Your task to perform on an android device: open app "Pandora - Music & Podcasts" (install if not already installed) Image 0: 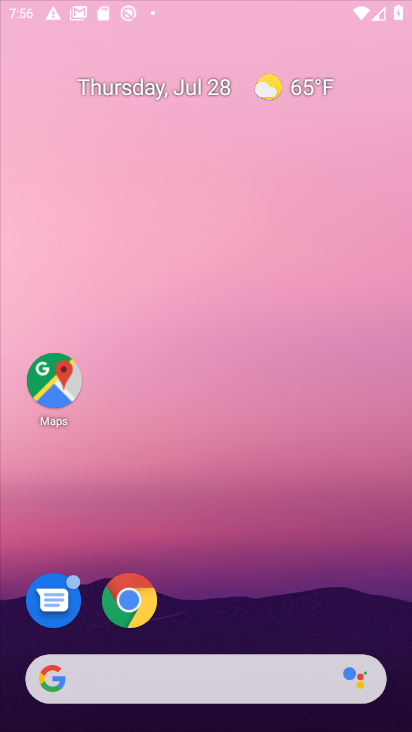
Step 0: press home button
Your task to perform on an android device: open app "Pandora - Music & Podcasts" (install if not already installed) Image 1: 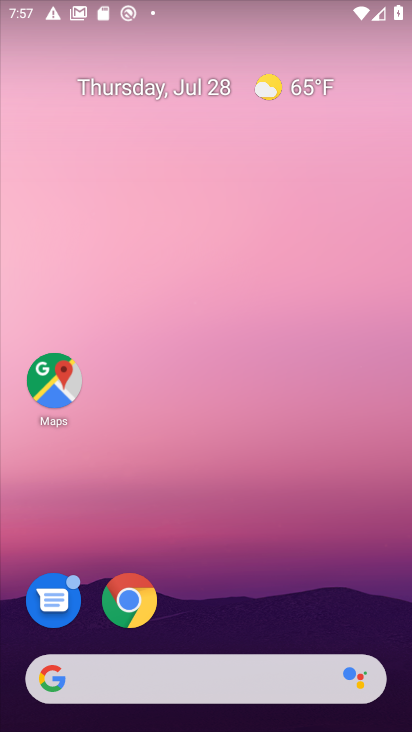
Step 1: drag from (206, 569) to (253, 144)
Your task to perform on an android device: open app "Pandora - Music & Podcasts" (install if not already installed) Image 2: 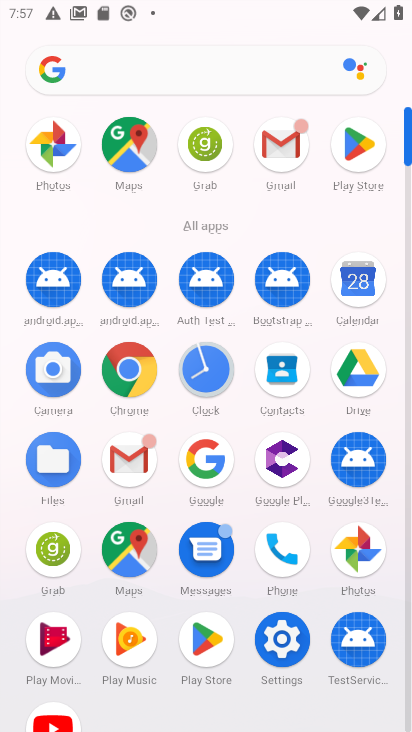
Step 2: click (206, 627)
Your task to perform on an android device: open app "Pandora - Music & Podcasts" (install if not already installed) Image 3: 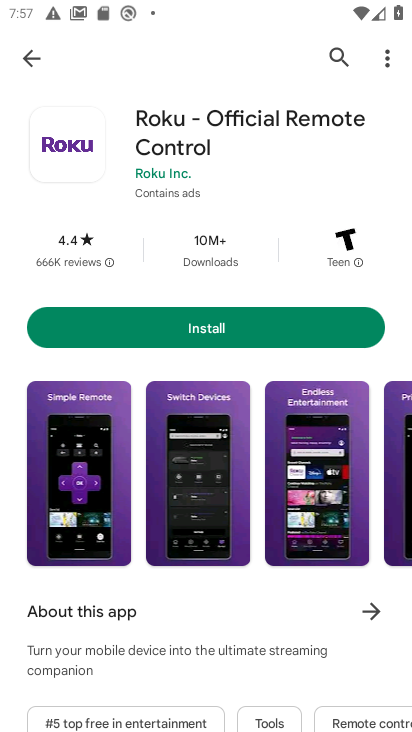
Step 3: click (28, 55)
Your task to perform on an android device: open app "Pandora - Music & Podcasts" (install if not already installed) Image 4: 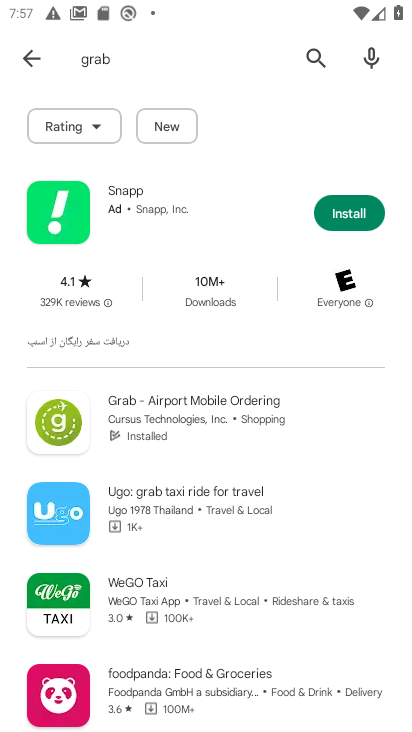
Step 4: click (311, 54)
Your task to perform on an android device: open app "Pandora - Music & Podcasts" (install if not already installed) Image 5: 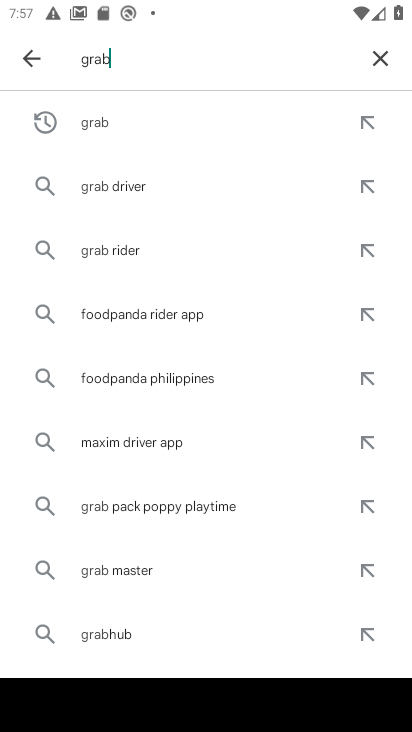
Step 5: click (382, 52)
Your task to perform on an android device: open app "Pandora - Music & Podcasts" (install if not already installed) Image 6: 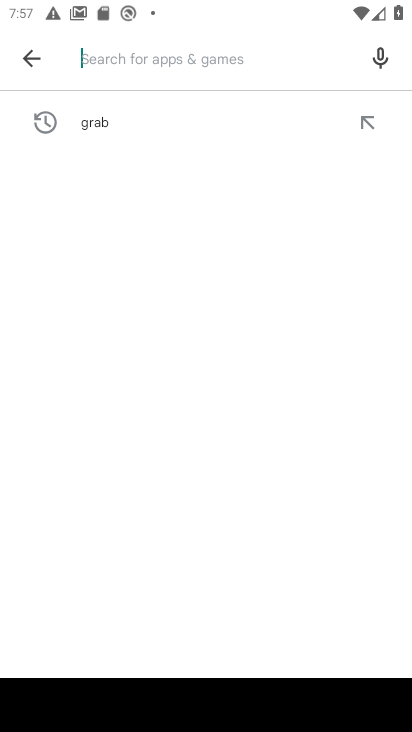
Step 6: type "Pandora - Music & Podcasts"
Your task to perform on an android device: open app "Pandora - Music & Podcasts" (install if not already installed) Image 7: 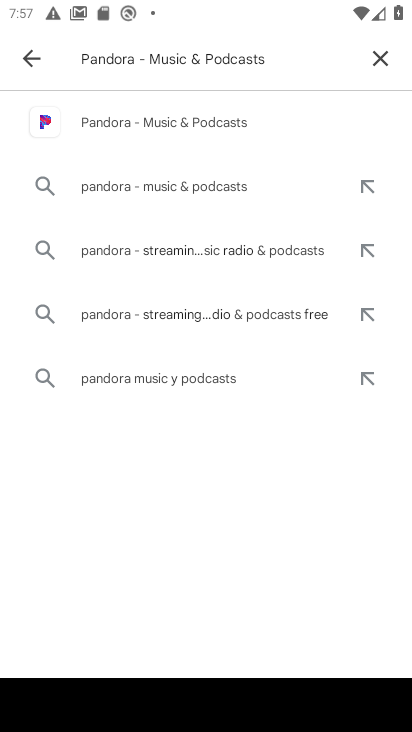
Step 7: click (179, 117)
Your task to perform on an android device: open app "Pandora - Music & Podcasts" (install if not already installed) Image 8: 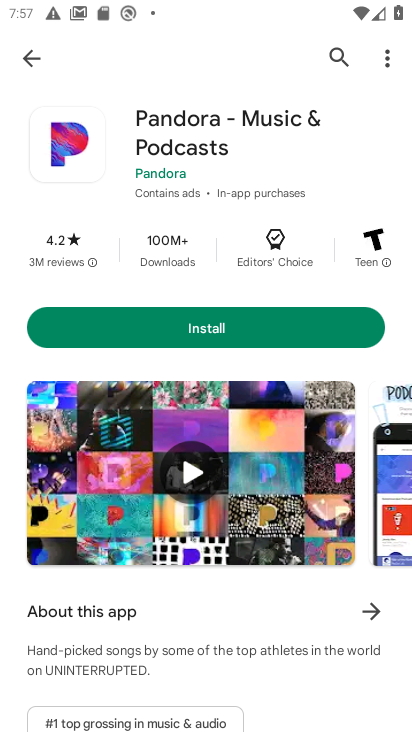
Step 8: click (203, 327)
Your task to perform on an android device: open app "Pandora - Music & Podcasts" (install if not already installed) Image 9: 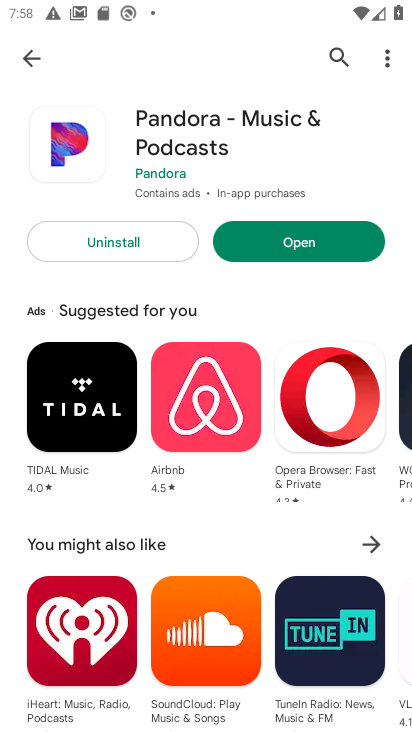
Step 9: click (292, 248)
Your task to perform on an android device: open app "Pandora - Music & Podcasts" (install if not already installed) Image 10: 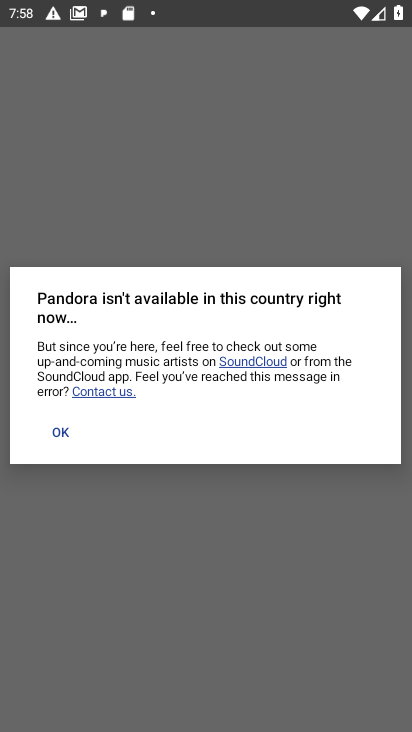
Step 10: click (65, 432)
Your task to perform on an android device: open app "Pandora - Music & Podcasts" (install if not already installed) Image 11: 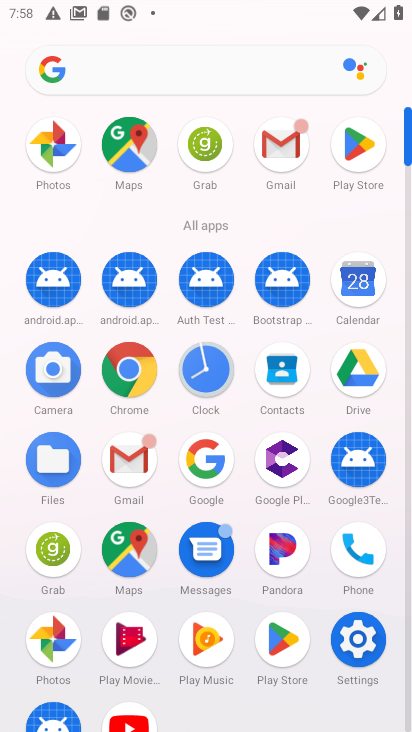
Step 11: task complete